Your task to perform on an android device: toggle pop-ups in chrome Image 0: 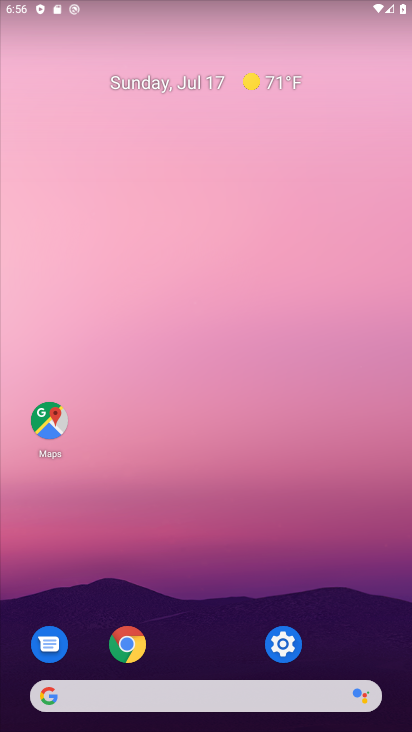
Step 0: click (126, 636)
Your task to perform on an android device: toggle pop-ups in chrome Image 1: 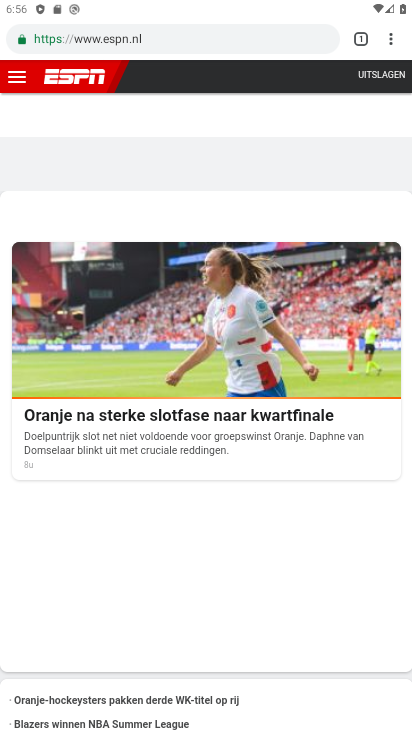
Step 1: click (390, 39)
Your task to perform on an android device: toggle pop-ups in chrome Image 2: 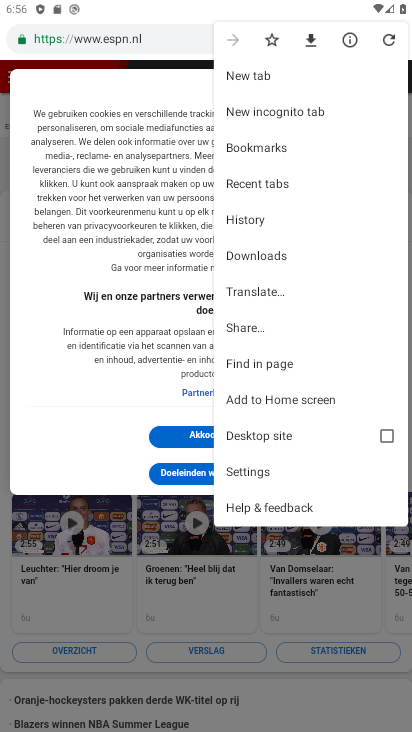
Step 2: click (243, 471)
Your task to perform on an android device: toggle pop-ups in chrome Image 3: 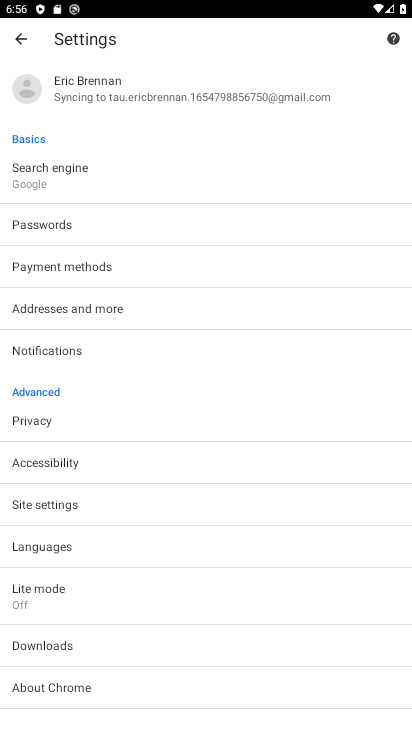
Step 3: click (88, 511)
Your task to perform on an android device: toggle pop-ups in chrome Image 4: 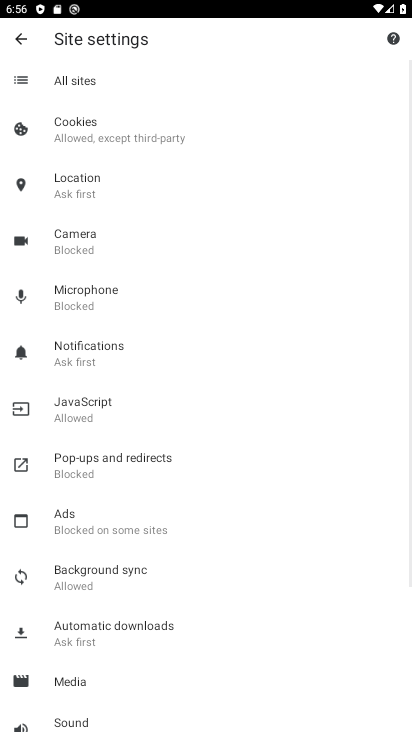
Step 4: click (96, 466)
Your task to perform on an android device: toggle pop-ups in chrome Image 5: 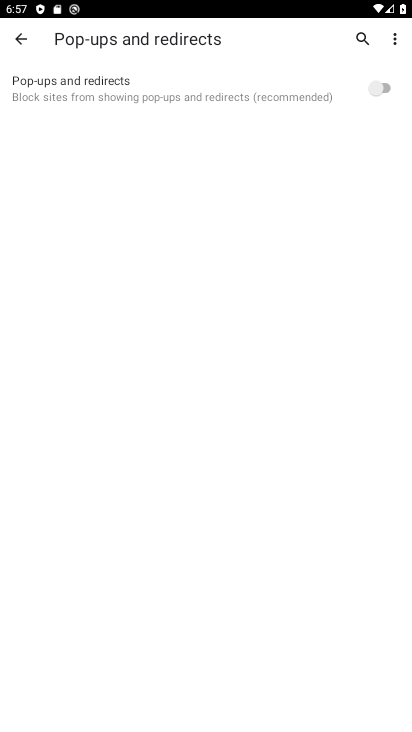
Step 5: task complete